Your task to perform on an android device: Do I have any events today? Image 0: 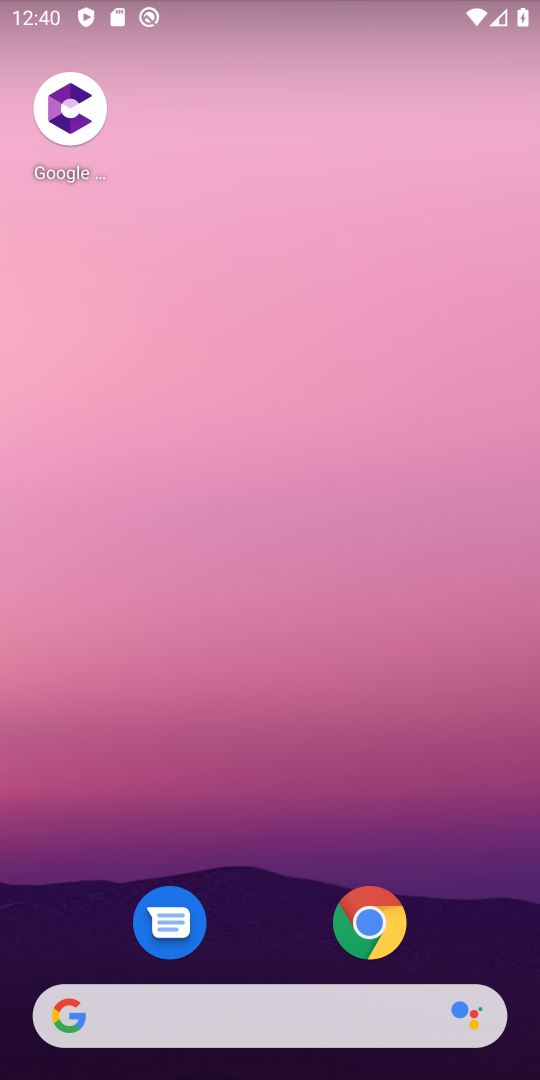
Step 0: drag from (241, 844) to (276, 15)
Your task to perform on an android device: Do I have any events today? Image 1: 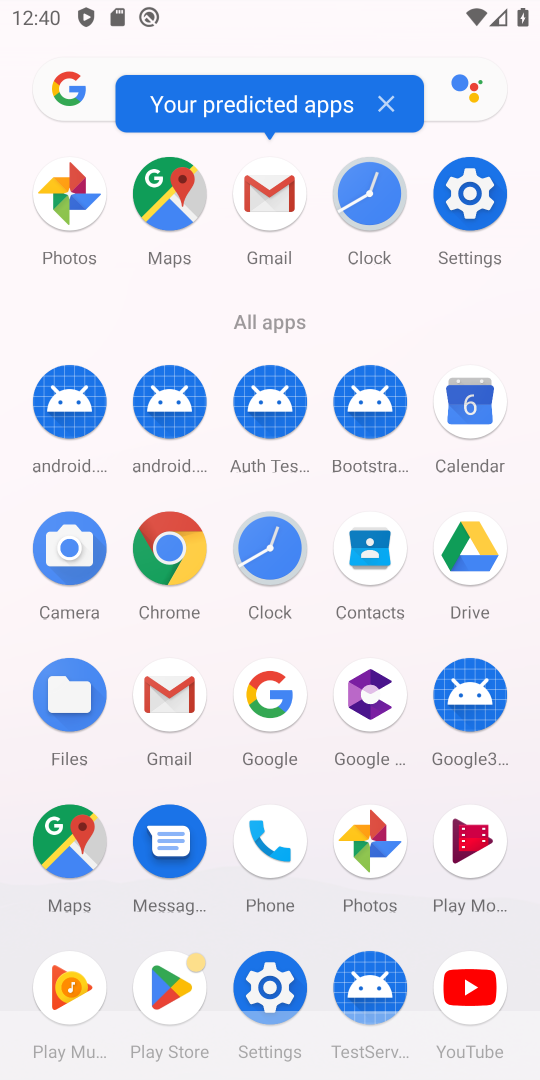
Step 1: click (468, 425)
Your task to perform on an android device: Do I have any events today? Image 2: 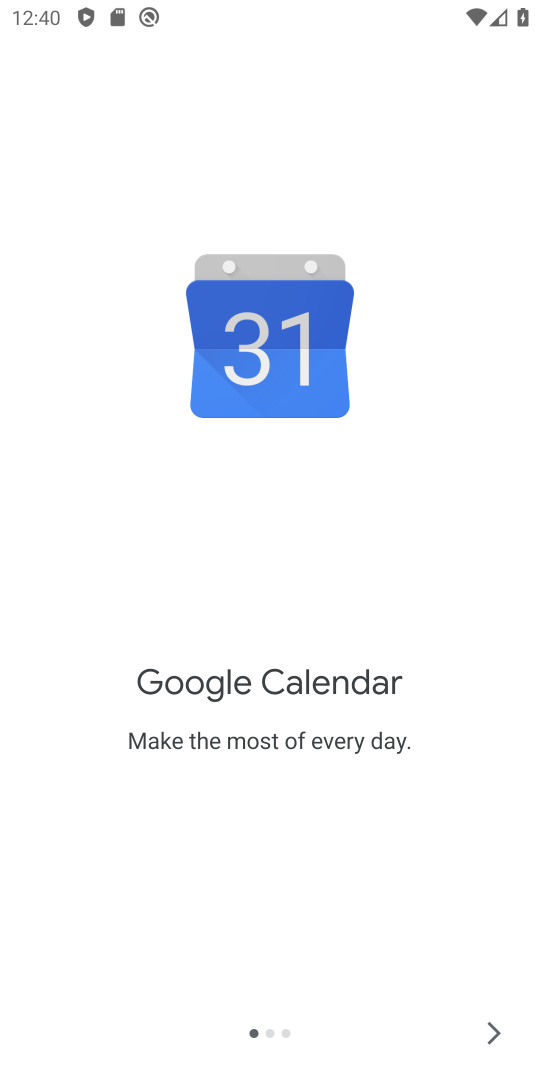
Step 2: click (484, 1011)
Your task to perform on an android device: Do I have any events today? Image 3: 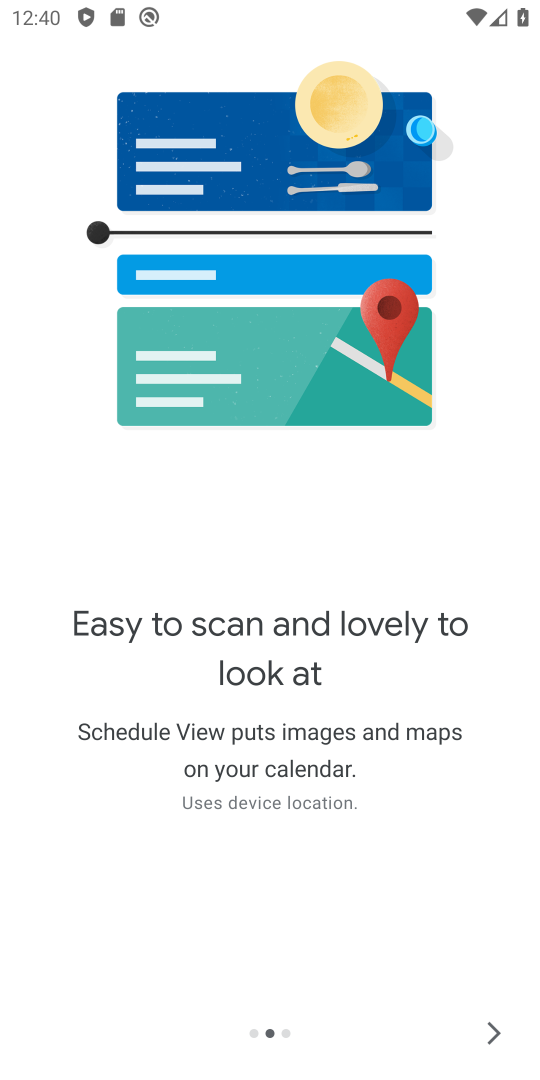
Step 3: click (484, 1011)
Your task to perform on an android device: Do I have any events today? Image 4: 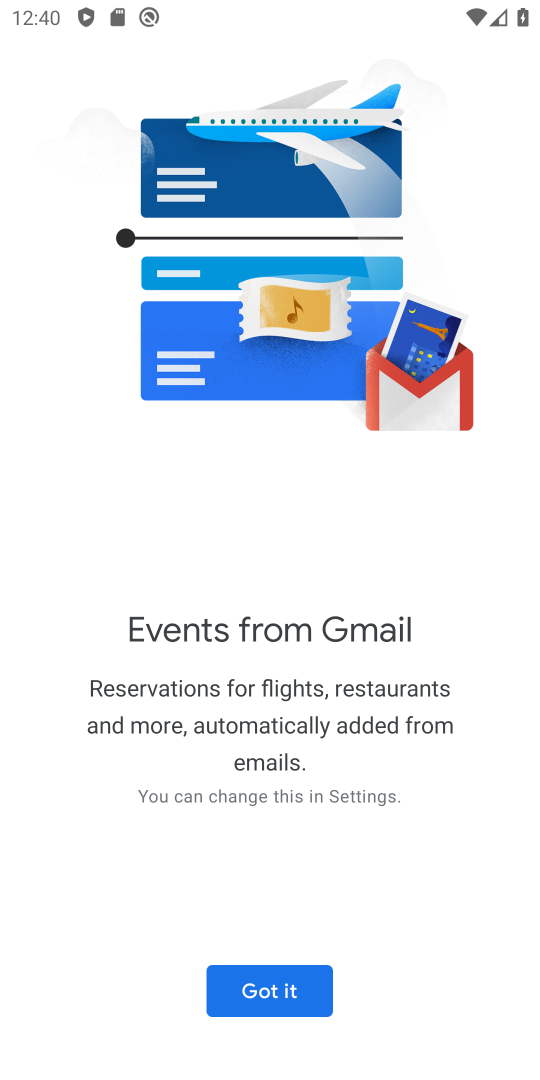
Step 4: click (277, 986)
Your task to perform on an android device: Do I have any events today? Image 5: 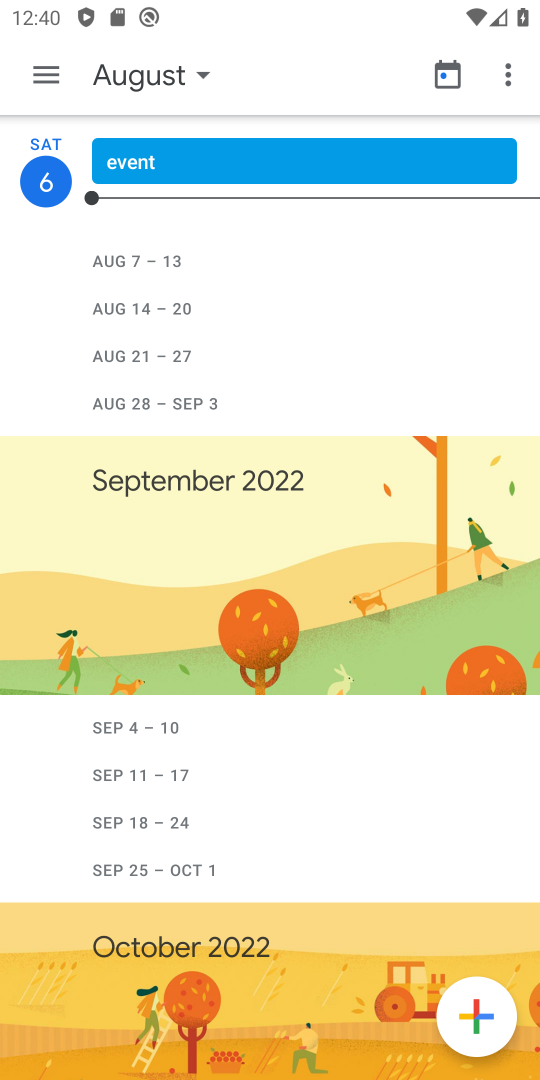
Step 5: click (30, 64)
Your task to perform on an android device: Do I have any events today? Image 6: 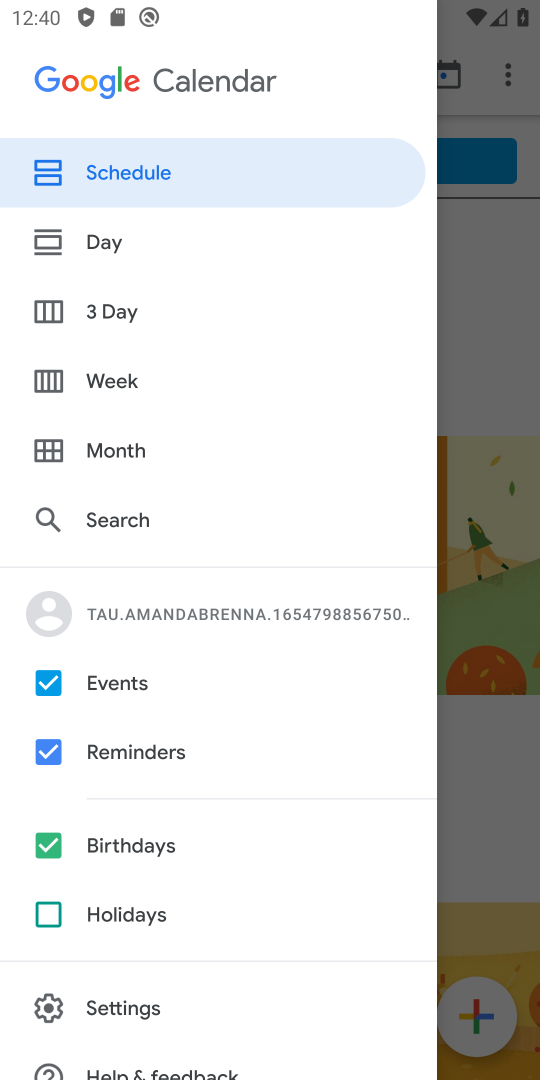
Step 6: click (46, 87)
Your task to perform on an android device: Do I have any events today? Image 7: 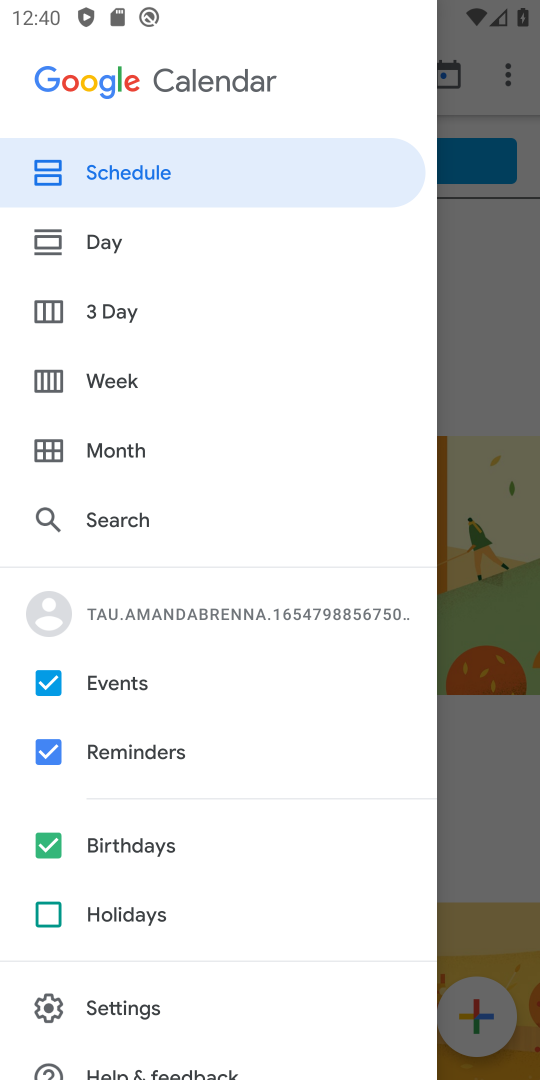
Step 7: click (33, 72)
Your task to perform on an android device: Do I have any events today? Image 8: 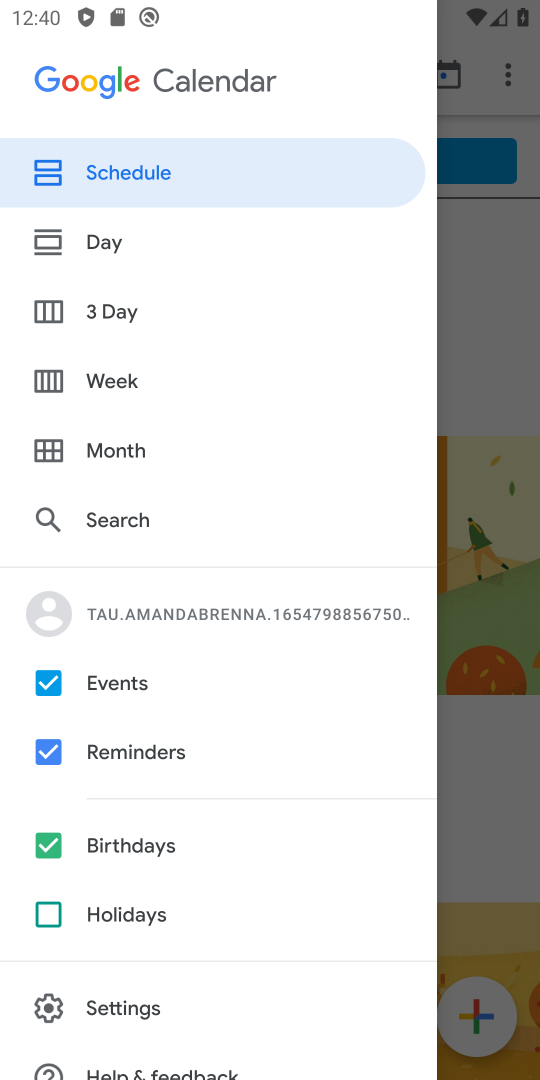
Step 8: click (103, 852)
Your task to perform on an android device: Do I have any events today? Image 9: 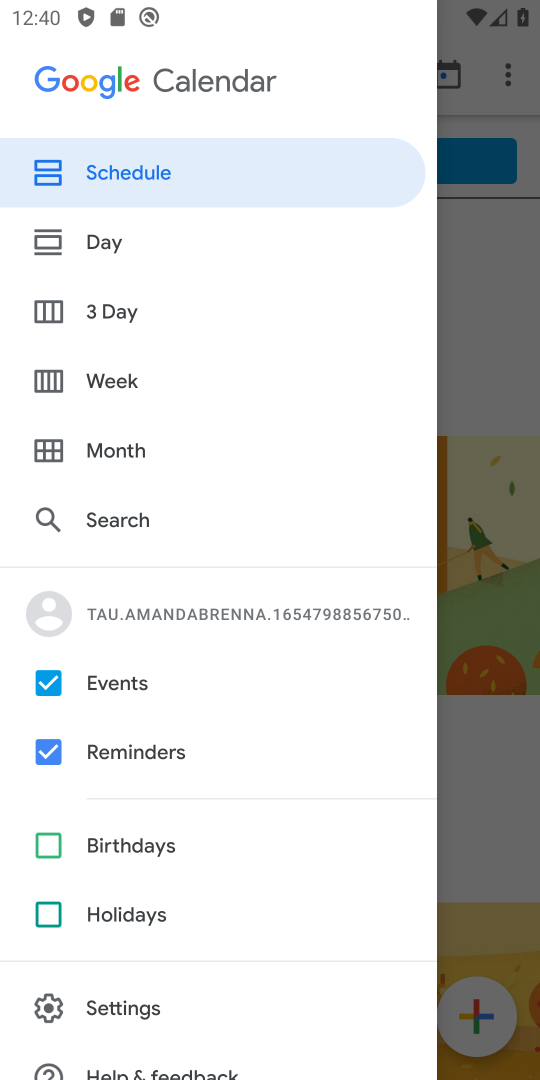
Step 9: click (109, 236)
Your task to perform on an android device: Do I have any events today? Image 10: 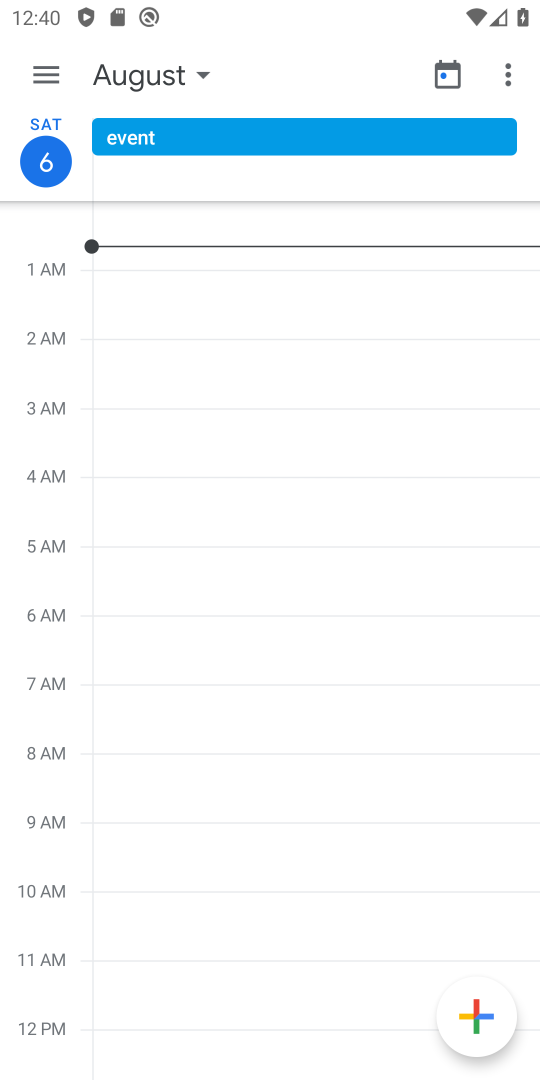
Step 10: task complete